Your task to perform on an android device: Go to Maps Image 0: 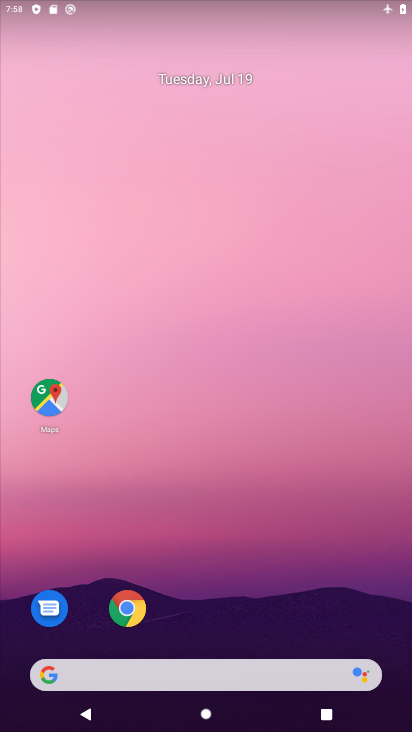
Step 0: drag from (187, 324) to (188, 252)
Your task to perform on an android device: Go to Maps Image 1: 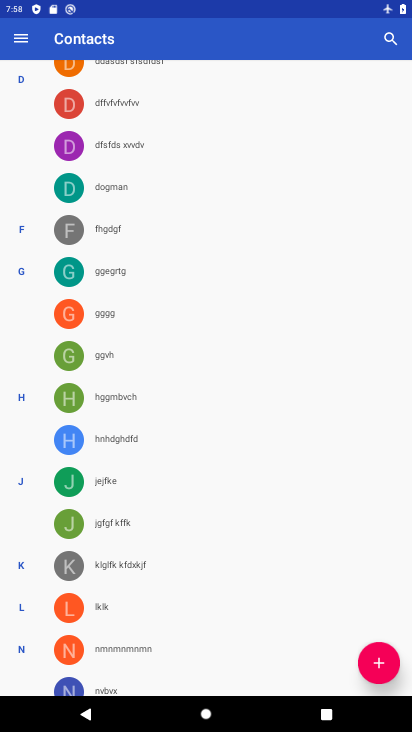
Step 1: press home button
Your task to perform on an android device: Go to Maps Image 2: 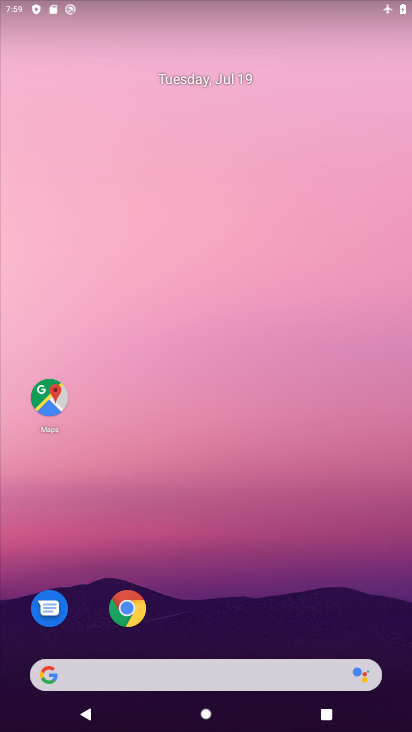
Step 2: click (42, 392)
Your task to perform on an android device: Go to Maps Image 3: 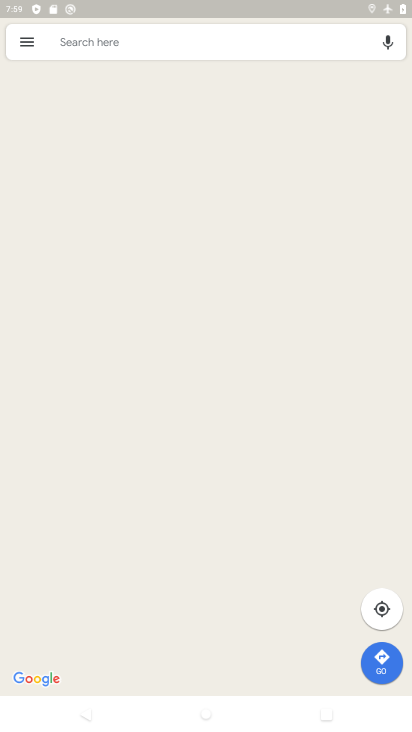
Step 3: task complete